Your task to perform on an android device: Open settings Image 0: 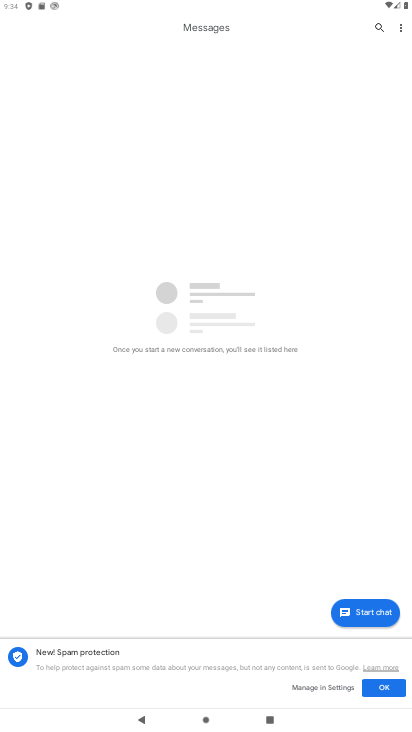
Step 0: press home button
Your task to perform on an android device: Open settings Image 1: 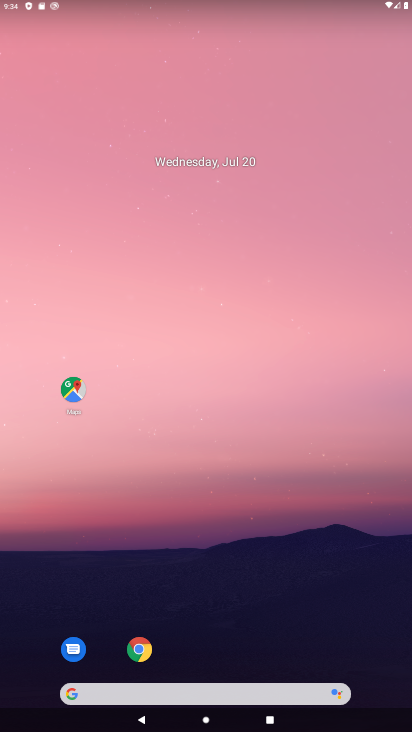
Step 1: drag from (251, 577) to (233, 266)
Your task to perform on an android device: Open settings Image 2: 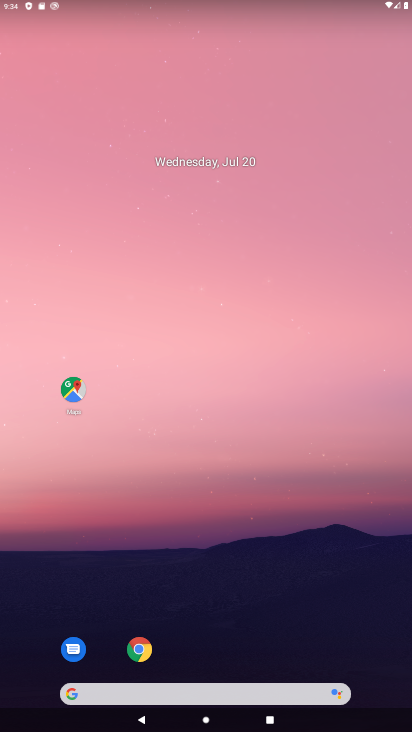
Step 2: drag from (293, 623) to (253, 60)
Your task to perform on an android device: Open settings Image 3: 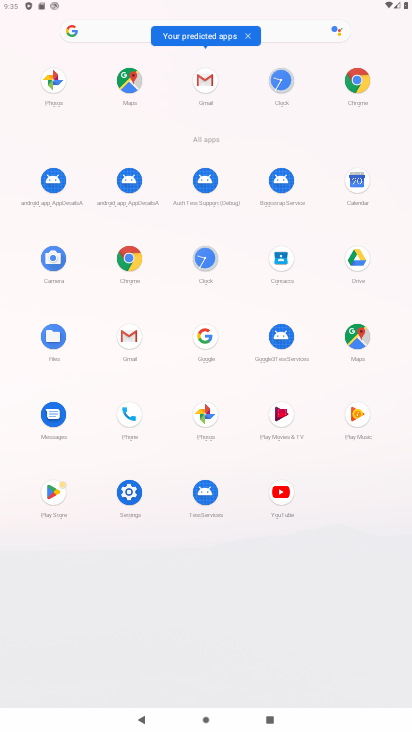
Step 3: click (131, 493)
Your task to perform on an android device: Open settings Image 4: 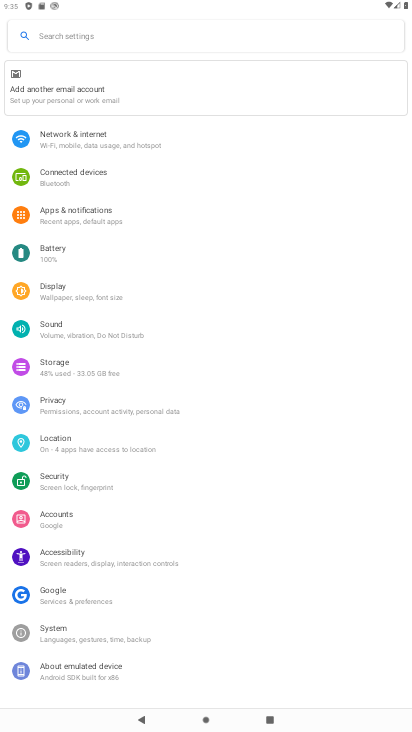
Step 4: task complete